Your task to perform on an android device: check out phone information Image 0: 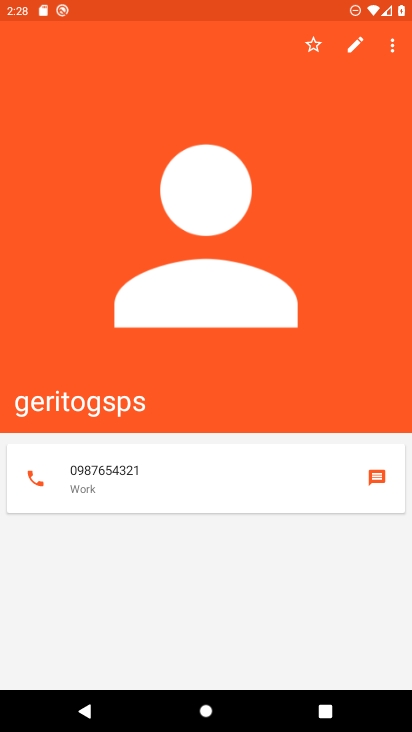
Step 0: press home button
Your task to perform on an android device: check out phone information Image 1: 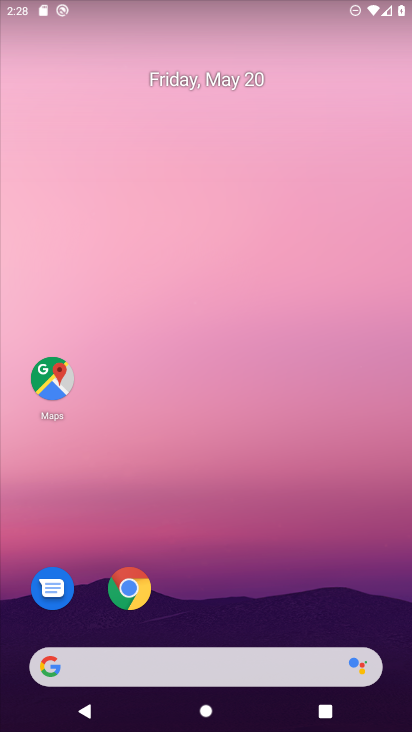
Step 1: drag from (385, 629) to (310, 42)
Your task to perform on an android device: check out phone information Image 2: 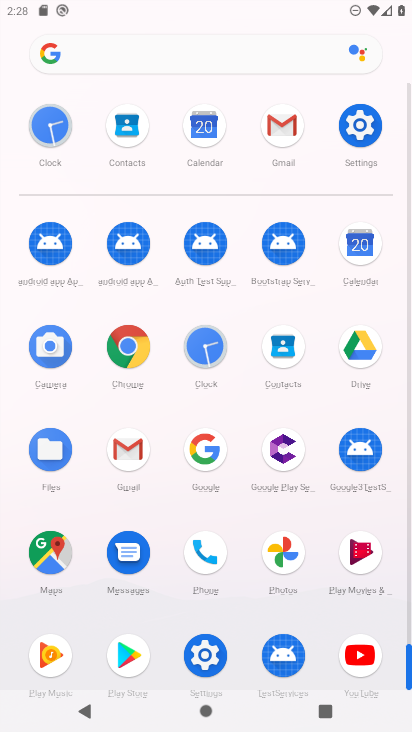
Step 2: click (208, 655)
Your task to perform on an android device: check out phone information Image 3: 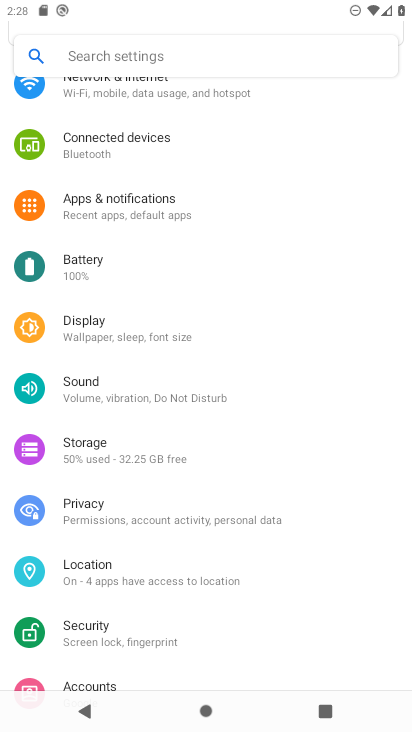
Step 3: drag from (325, 635) to (319, 173)
Your task to perform on an android device: check out phone information Image 4: 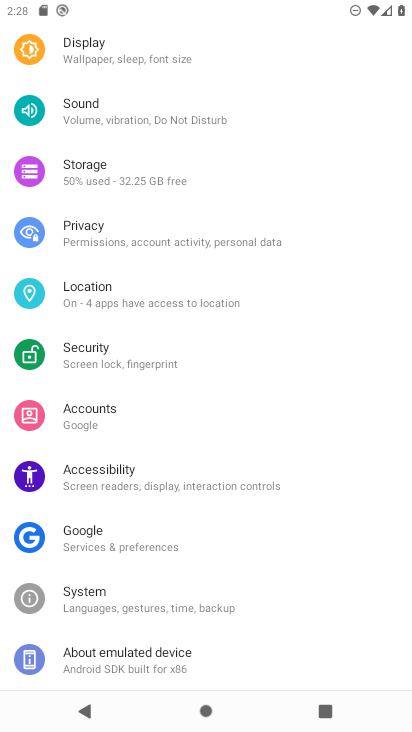
Step 4: click (119, 653)
Your task to perform on an android device: check out phone information Image 5: 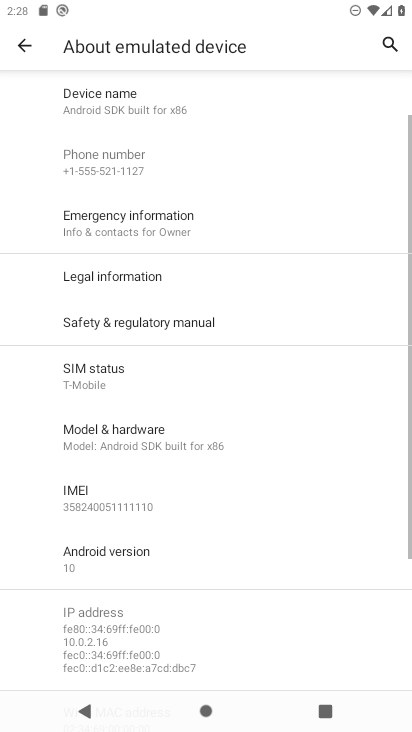
Step 5: task complete